Your task to perform on an android device: open the mobile data screen to see how much data has been used Image 0: 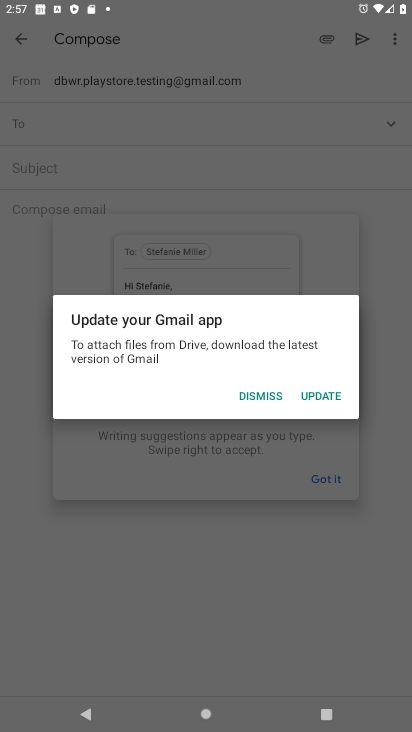
Step 0: press home button
Your task to perform on an android device: open the mobile data screen to see how much data has been used Image 1: 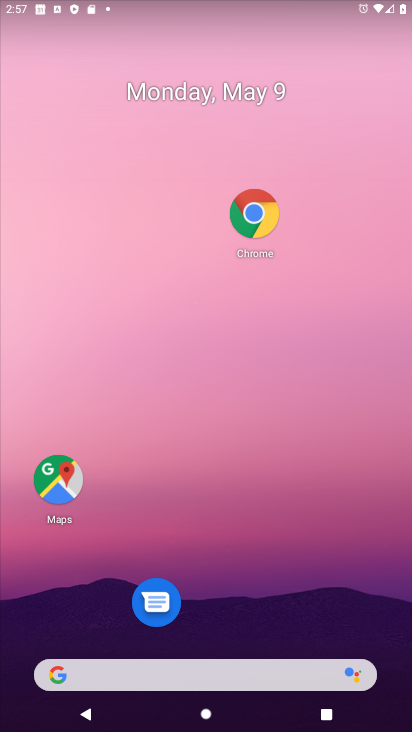
Step 1: drag from (277, 590) to (266, 65)
Your task to perform on an android device: open the mobile data screen to see how much data has been used Image 2: 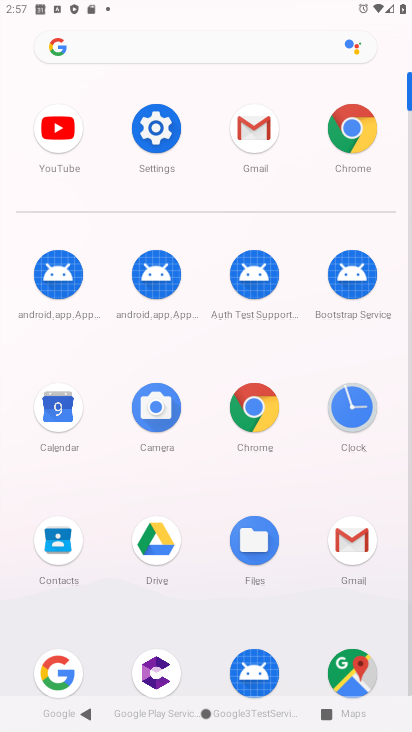
Step 2: click (162, 147)
Your task to perform on an android device: open the mobile data screen to see how much data has been used Image 3: 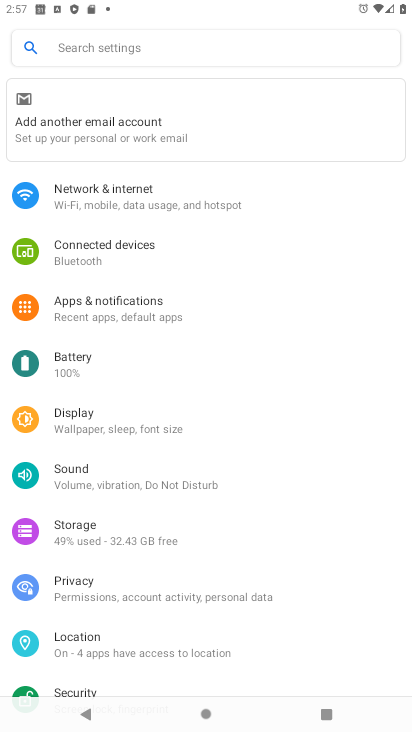
Step 3: click (163, 216)
Your task to perform on an android device: open the mobile data screen to see how much data has been used Image 4: 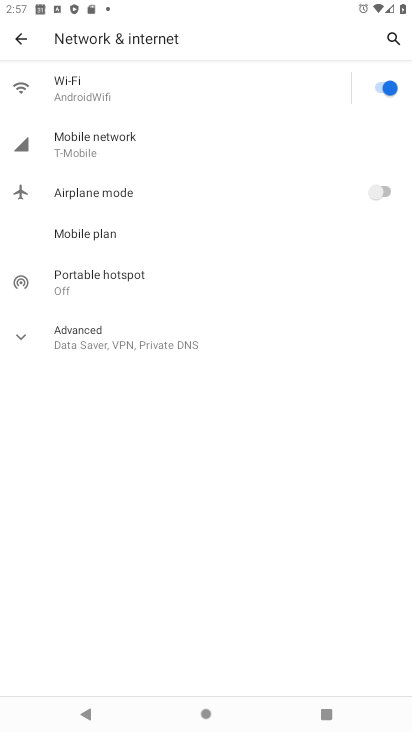
Step 4: click (180, 201)
Your task to perform on an android device: open the mobile data screen to see how much data has been used Image 5: 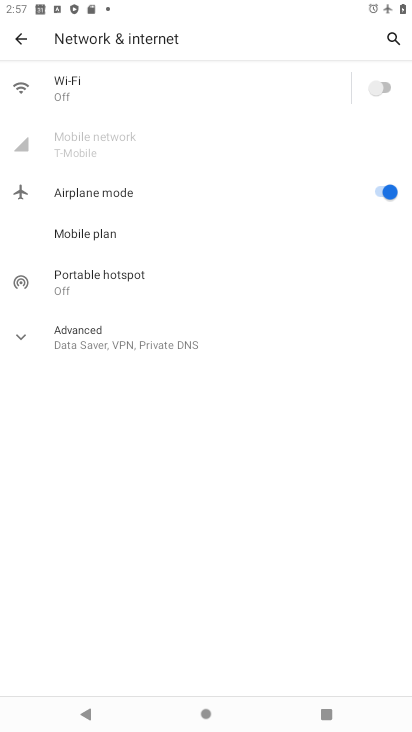
Step 5: task complete